Your task to perform on an android device: check the backup settings in the google photos Image 0: 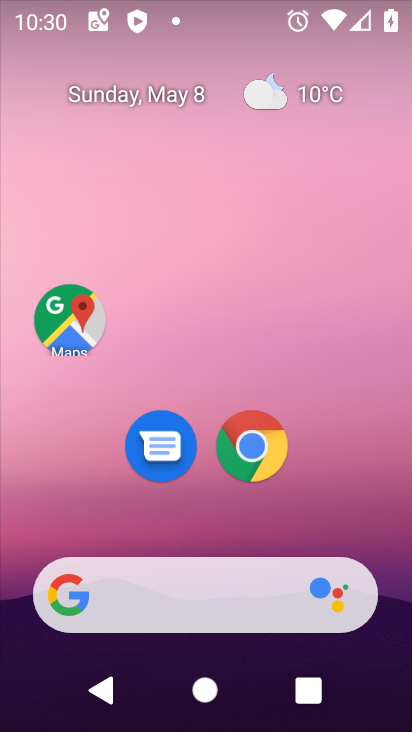
Step 0: drag from (384, 555) to (402, 14)
Your task to perform on an android device: check the backup settings in the google photos Image 1: 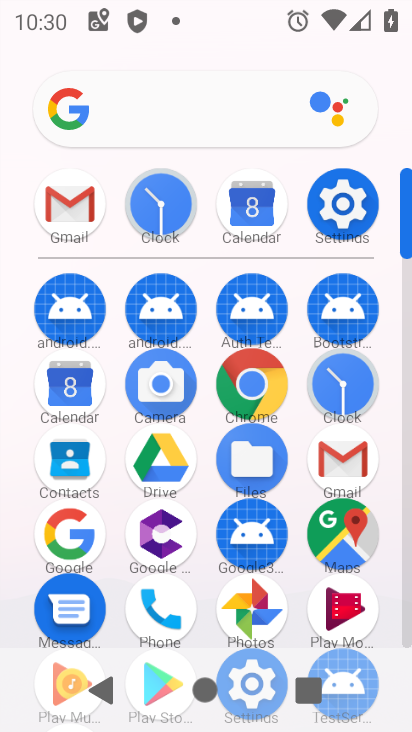
Step 1: click (257, 619)
Your task to perform on an android device: check the backup settings in the google photos Image 2: 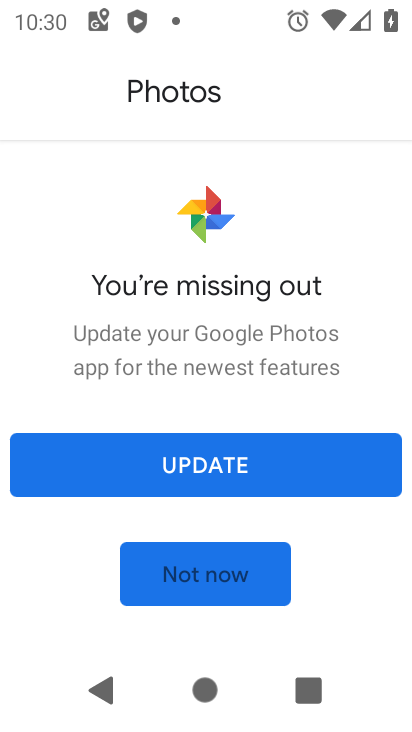
Step 2: click (220, 579)
Your task to perform on an android device: check the backup settings in the google photos Image 3: 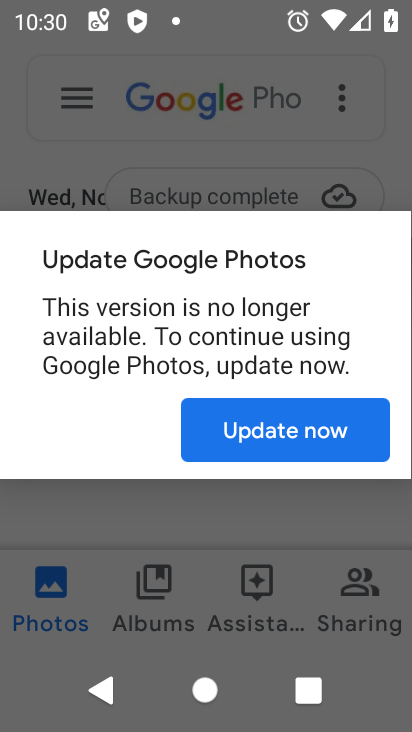
Step 3: click (304, 439)
Your task to perform on an android device: check the backup settings in the google photos Image 4: 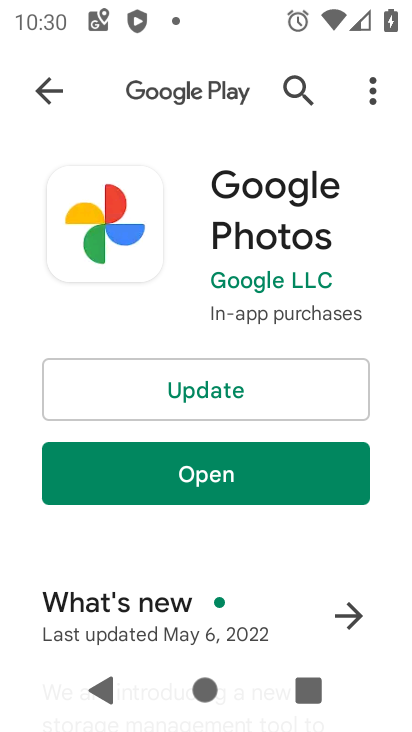
Step 4: click (188, 481)
Your task to perform on an android device: check the backup settings in the google photos Image 5: 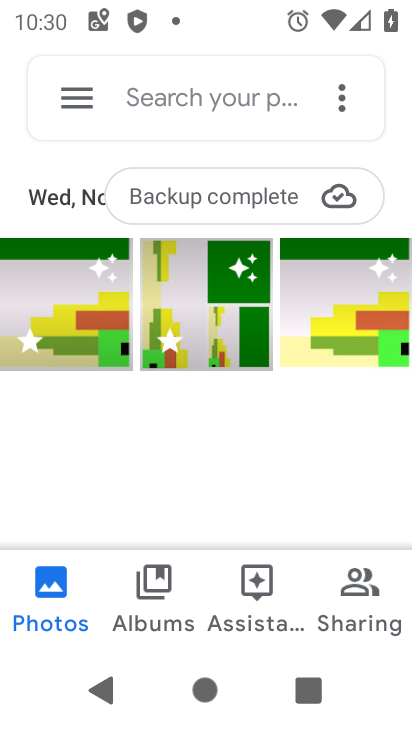
Step 5: click (74, 103)
Your task to perform on an android device: check the backup settings in the google photos Image 6: 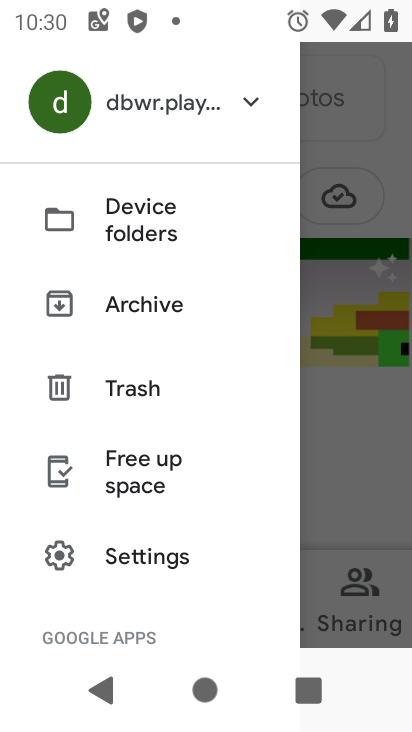
Step 6: click (145, 566)
Your task to perform on an android device: check the backup settings in the google photos Image 7: 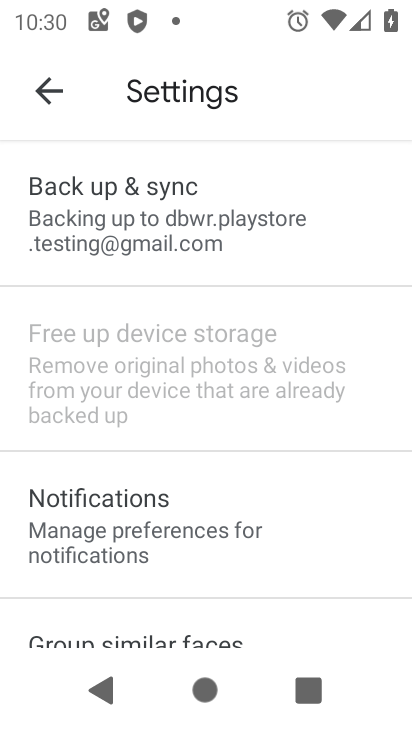
Step 7: click (110, 231)
Your task to perform on an android device: check the backup settings in the google photos Image 8: 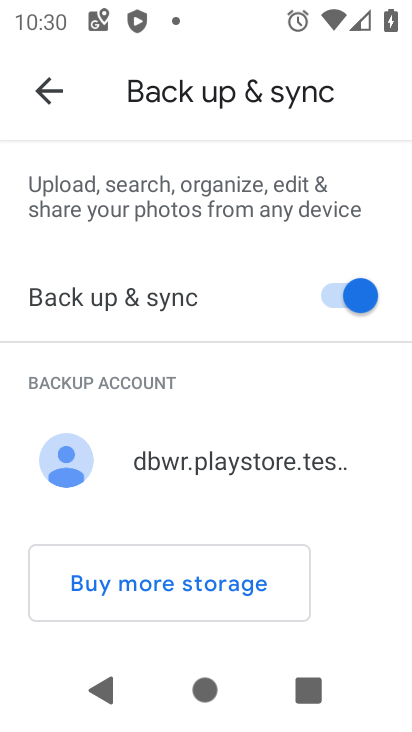
Step 8: task complete